Your task to perform on an android device: Open calendar and show me the second week of next month Image 0: 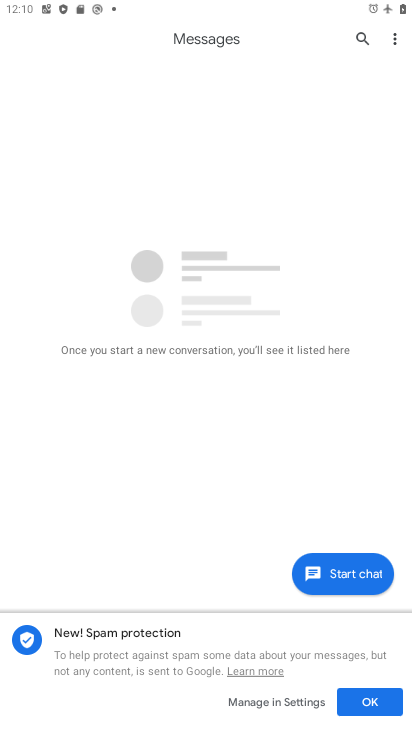
Step 0: press home button
Your task to perform on an android device: Open calendar and show me the second week of next month Image 1: 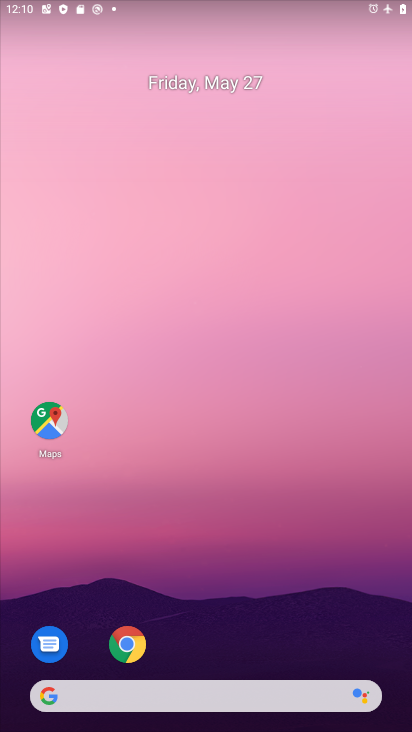
Step 1: drag from (186, 655) to (215, 205)
Your task to perform on an android device: Open calendar and show me the second week of next month Image 2: 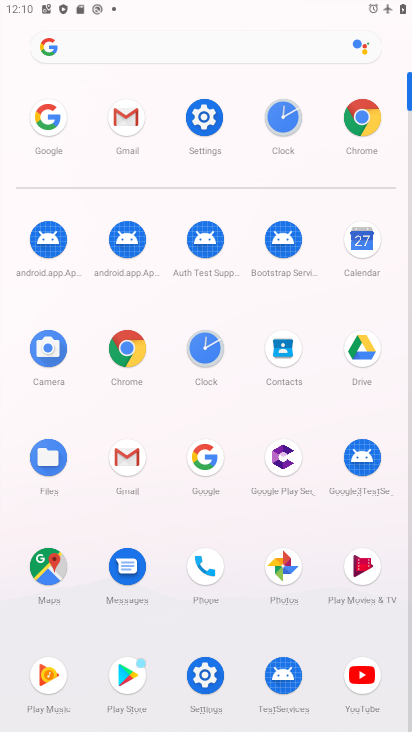
Step 2: click (347, 227)
Your task to perform on an android device: Open calendar and show me the second week of next month Image 3: 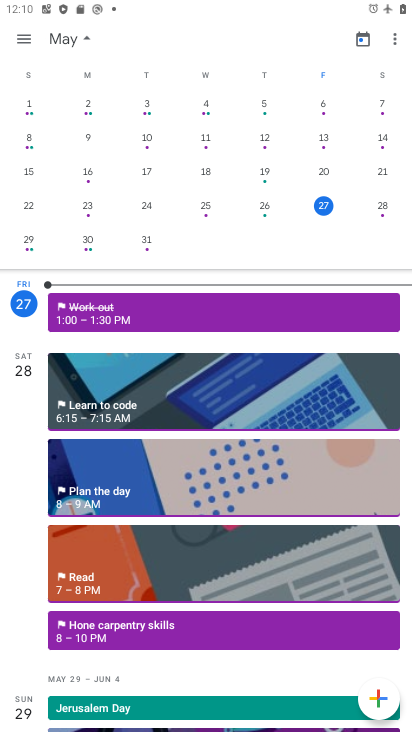
Step 3: click (65, 35)
Your task to perform on an android device: Open calendar and show me the second week of next month Image 4: 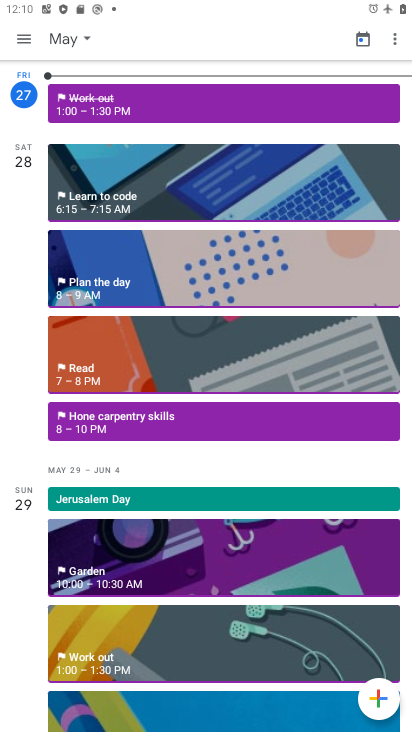
Step 4: click (65, 35)
Your task to perform on an android device: Open calendar and show me the second week of next month Image 5: 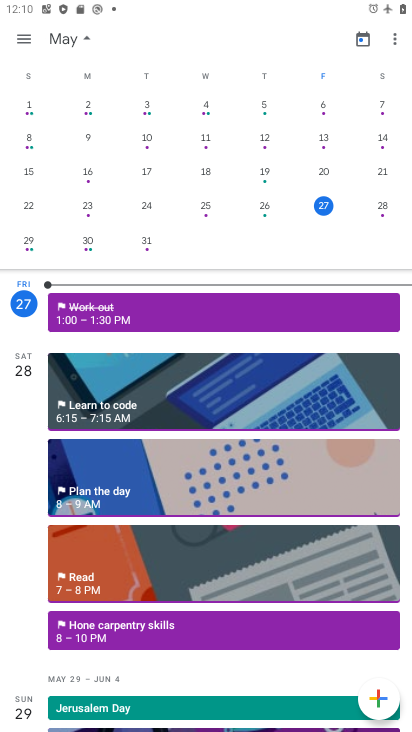
Step 5: drag from (344, 149) to (4, 231)
Your task to perform on an android device: Open calendar and show me the second week of next month Image 6: 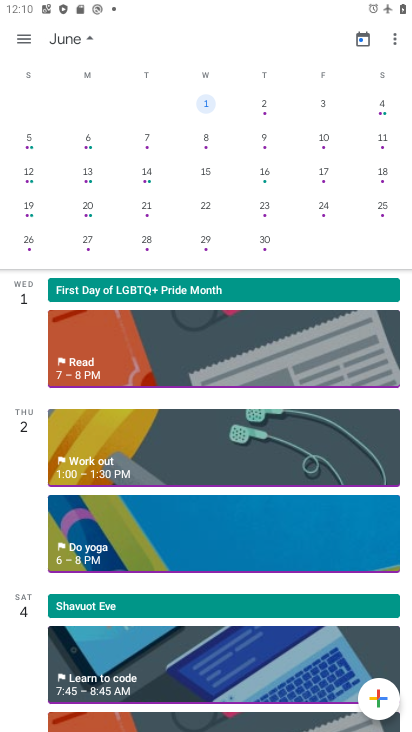
Step 6: click (25, 125)
Your task to perform on an android device: Open calendar and show me the second week of next month Image 7: 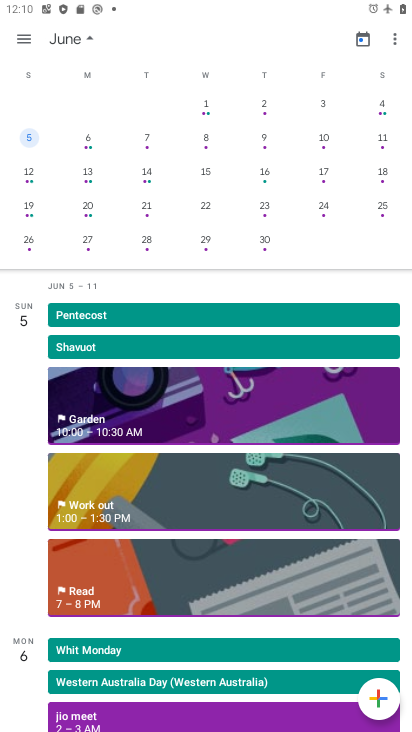
Step 7: task complete